Your task to perform on an android device: toggle notification dots Image 0: 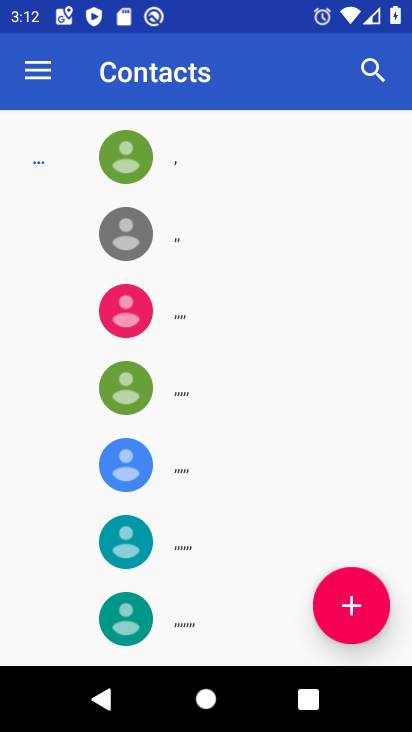
Step 0: press home button
Your task to perform on an android device: toggle notification dots Image 1: 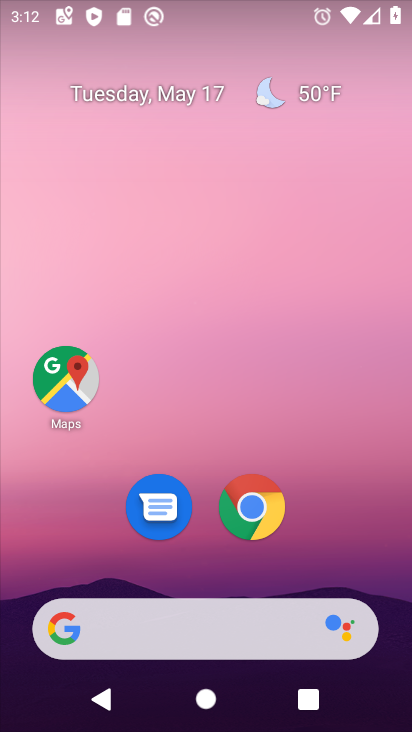
Step 1: drag from (347, 514) to (252, 58)
Your task to perform on an android device: toggle notification dots Image 2: 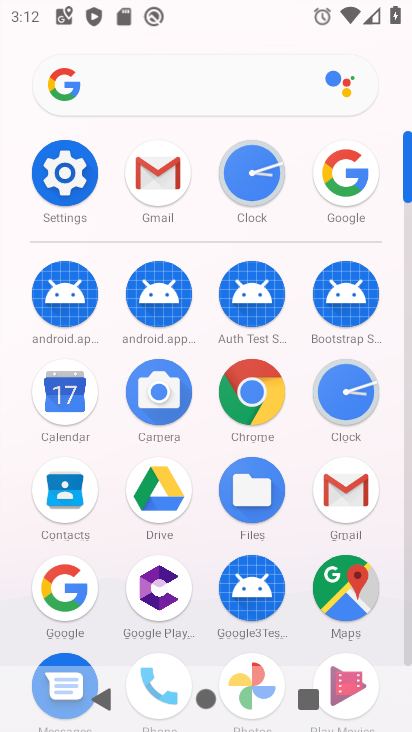
Step 2: click (68, 182)
Your task to perform on an android device: toggle notification dots Image 3: 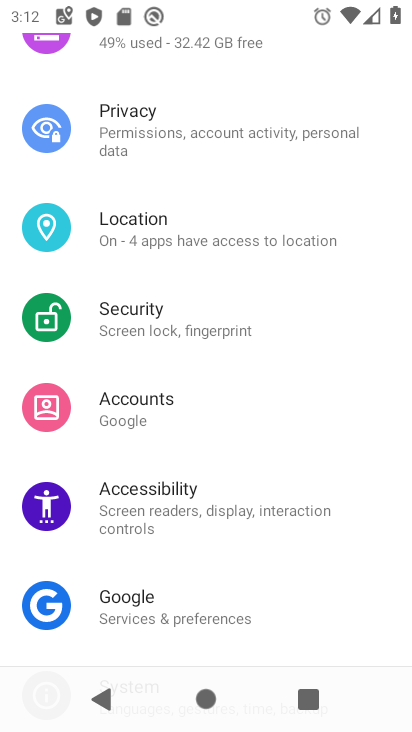
Step 3: drag from (259, 204) to (229, 576)
Your task to perform on an android device: toggle notification dots Image 4: 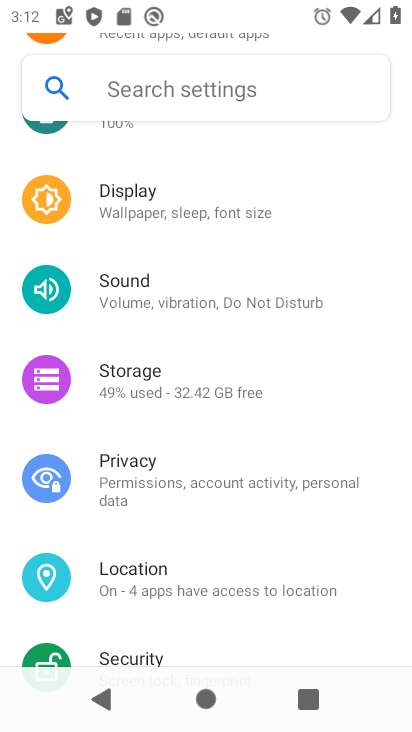
Step 4: drag from (196, 204) to (198, 539)
Your task to perform on an android device: toggle notification dots Image 5: 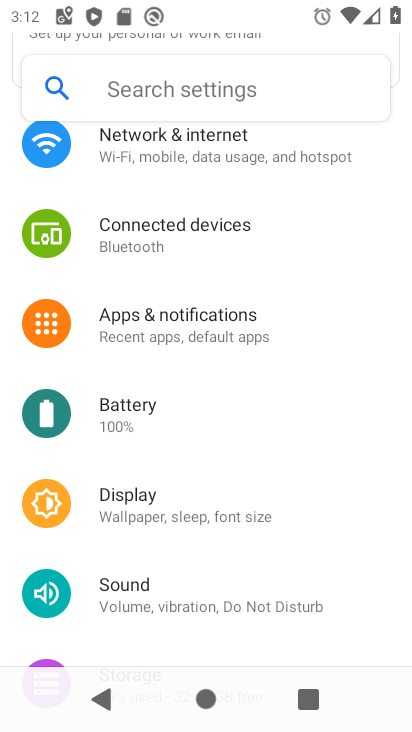
Step 5: click (213, 318)
Your task to perform on an android device: toggle notification dots Image 6: 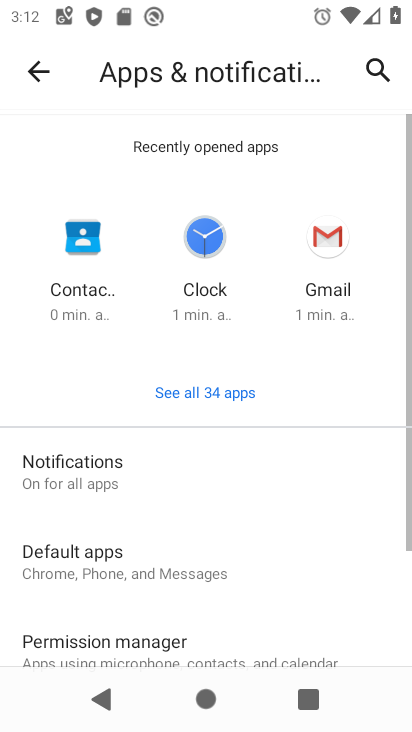
Step 6: drag from (255, 548) to (256, 357)
Your task to perform on an android device: toggle notification dots Image 7: 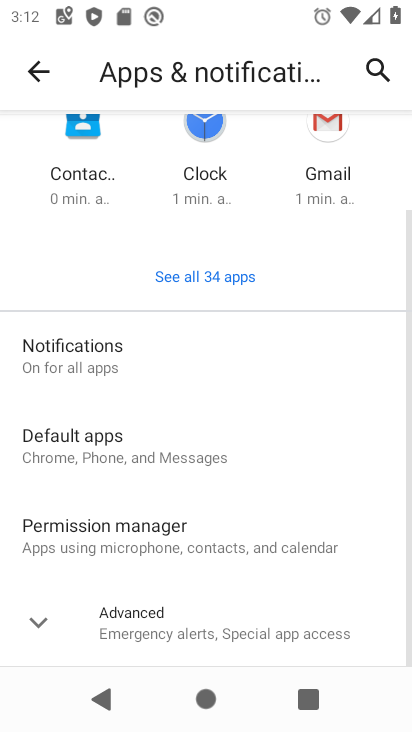
Step 7: click (147, 351)
Your task to perform on an android device: toggle notification dots Image 8: 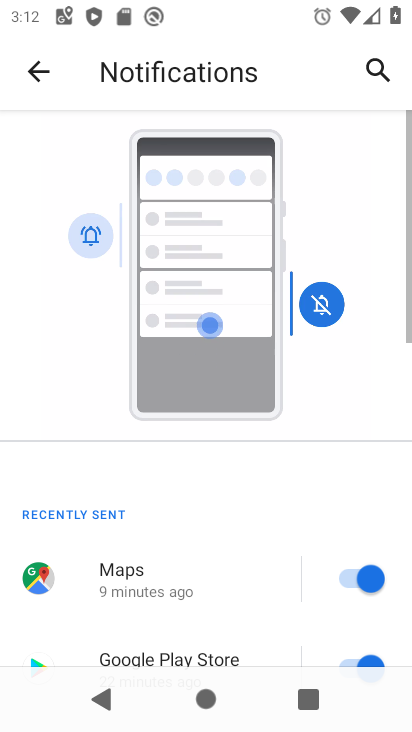
Step 8: drag from (256, 567) to (249, 156)
Your task to perform on an android device: toggle notification dots Image 9: 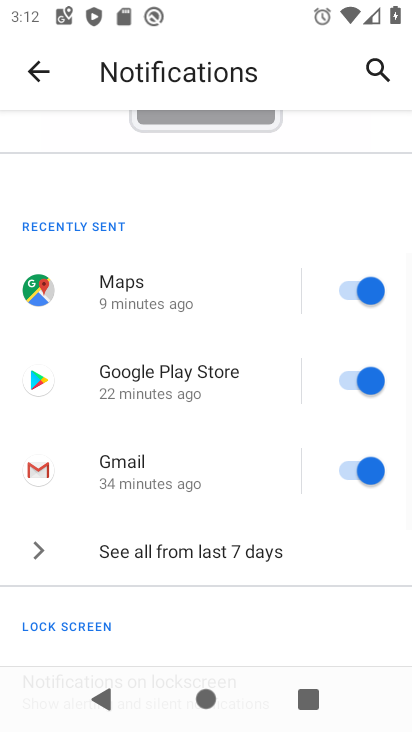
Step 9: drag from (170, 514) to (229, 221)
Your task to perform on an android device: toggle notification dots Image 10: 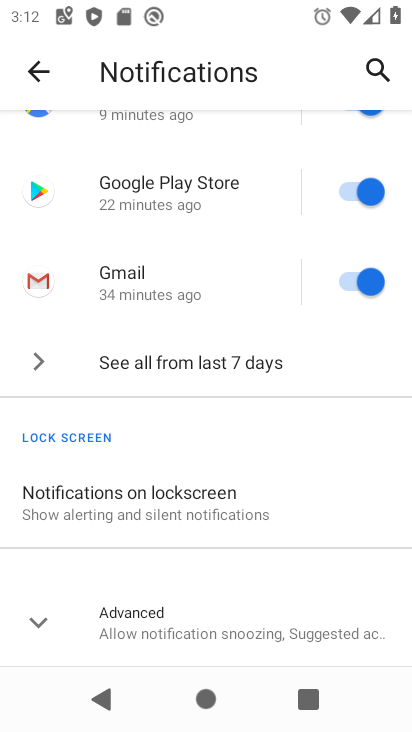
Step 10: drag from (234, 425) to (241, 224)
Your task to perform on an android device: toggle notification dots Image 11: 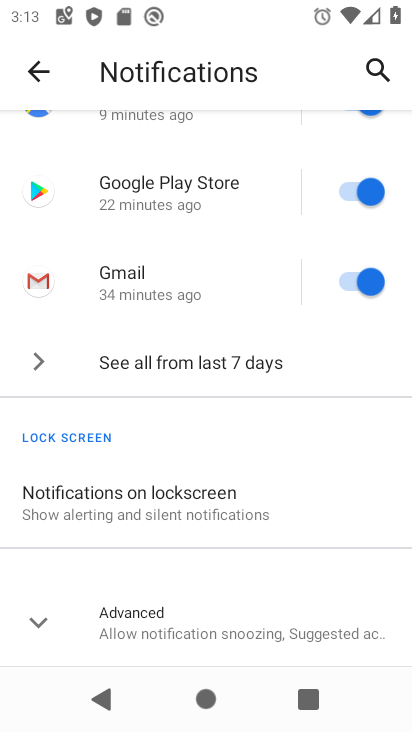
Step 11: click (219, 619)
Your task to perform on an android device: toggle notification dots Image 12: 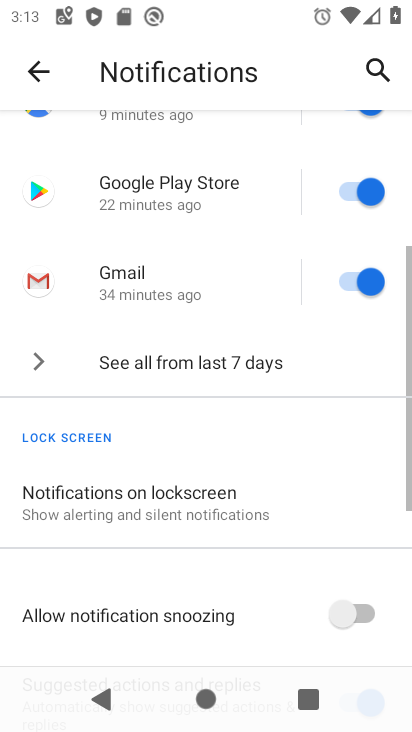
Step 12: drag from (217, 594) to (258, 180)
Your task to perform on an android device: toggle notification dots Image 13: 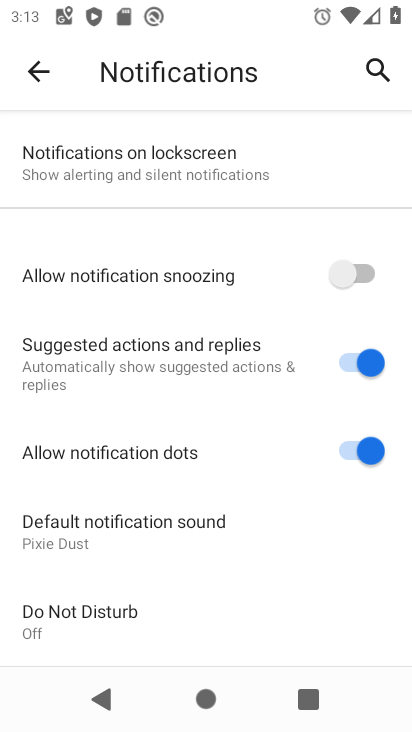
Step 13: click (362, 441)
Your task to perform on an android device: toggle notification dots Image 14: 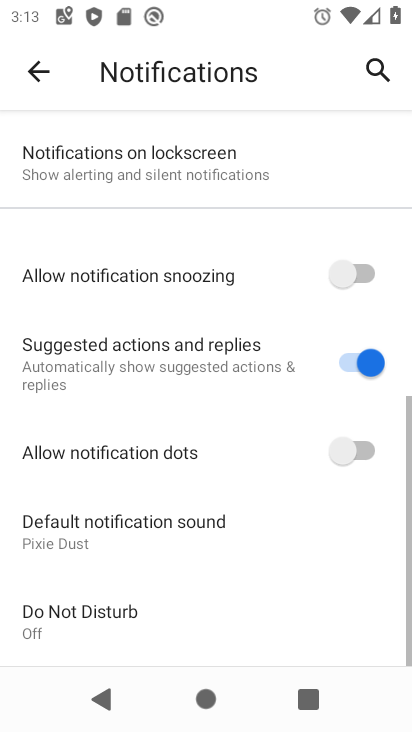
Step 14: task complete